Your task to perform on an android device: move a message to another label in the gmail app Image 0: 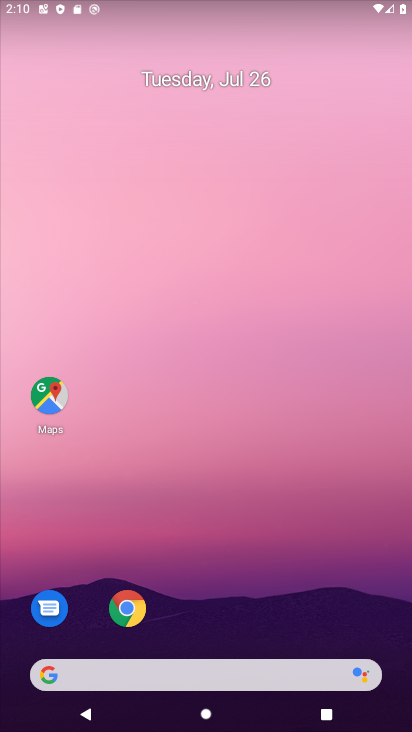
Step 0: drag from (275, 627) to (287, 70)
Your task to perform on an android device: move a message to another label in the gmail app Image 1: 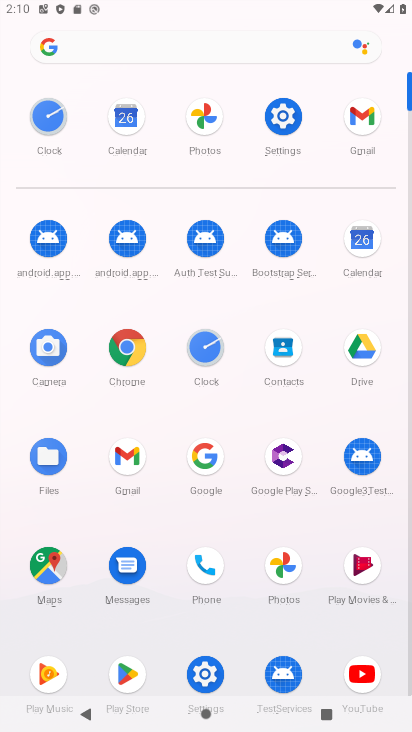
Step 1: click (354, 129)
Your task to perform on an android device: move a message to another label in the gmail app Image 2: 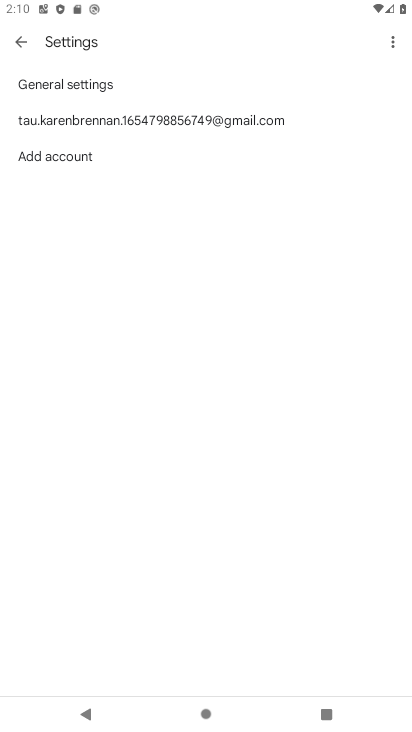
Step 2: task complete